Your task to perform on an android device: check storage Image 0: 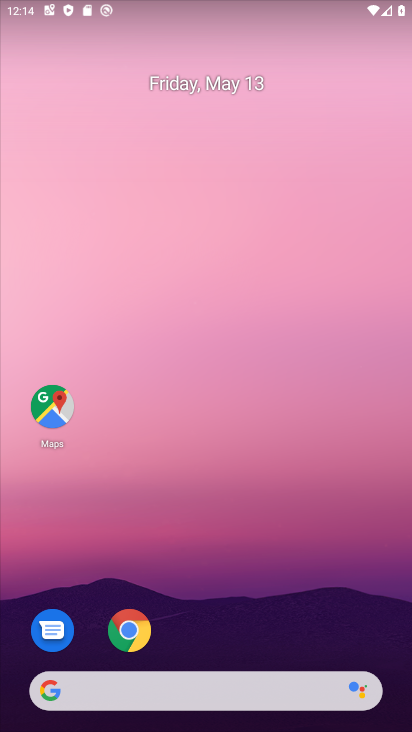
Step 0: drag from (357, 577) to (307, 205)
Your task to perform on an android device: check storage Image 1: 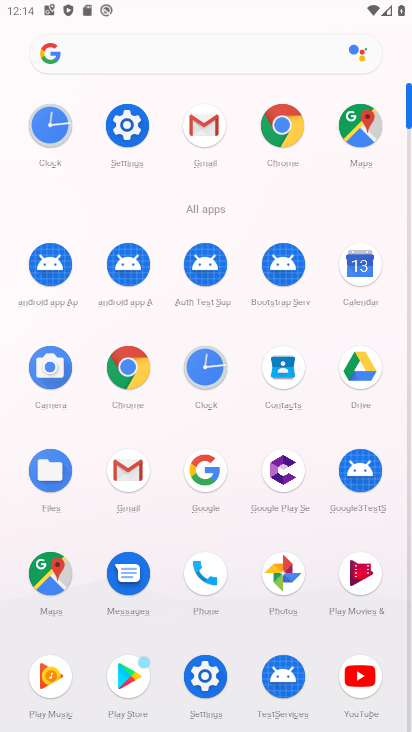
Step 1: click (137, 136)
Your task to perform on an android device: check storage Image 2: 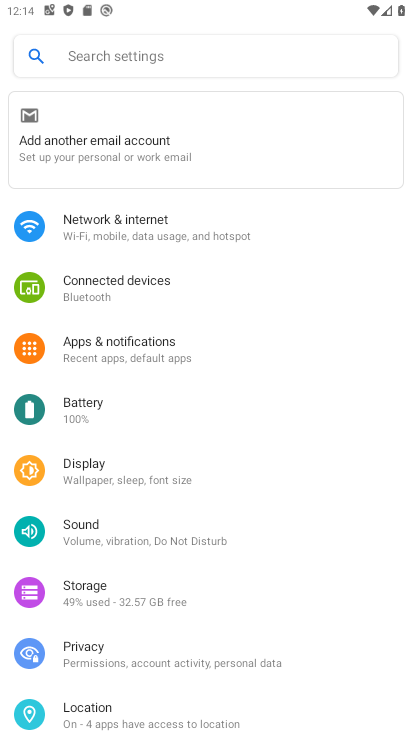
Step 2: drag from (200, 642) to (220, 397)
Your task to perform on an android device: check storage Image 3: 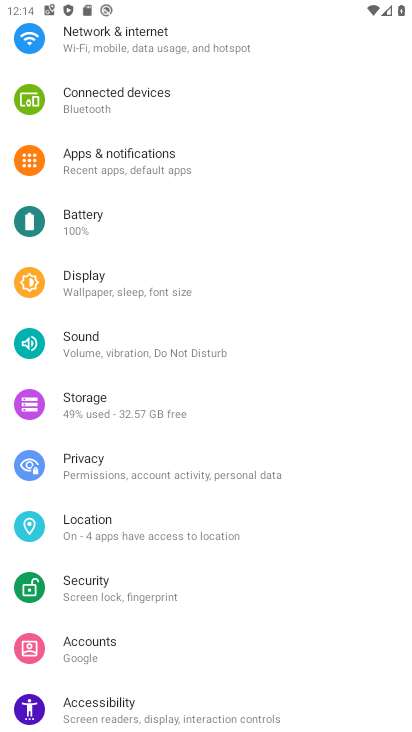
Step 3: click (144, 398)
Your task to perform on an android device: check storage Image 4: 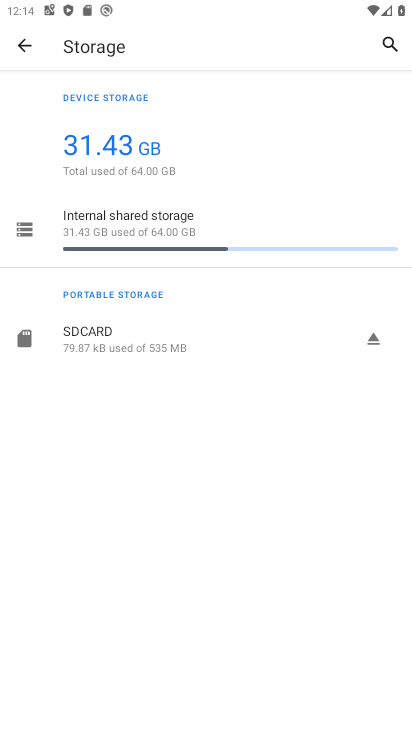
Step 4: click (36, 231)
Your task to perform on an android device: check storage Image 5: 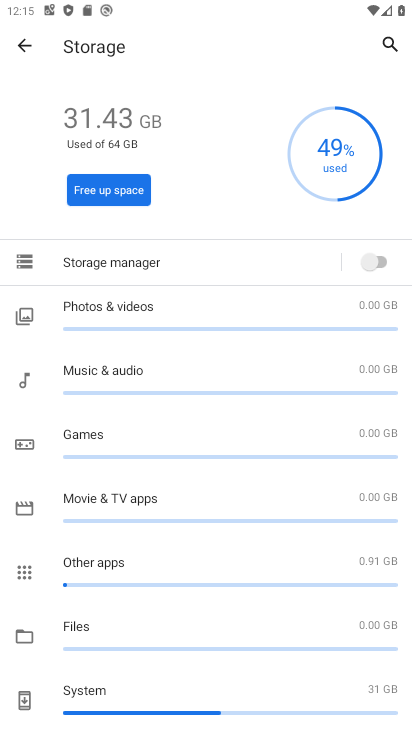
Step 5: task complete